Your task to perform on an android device: Go to internet settings Image 0: 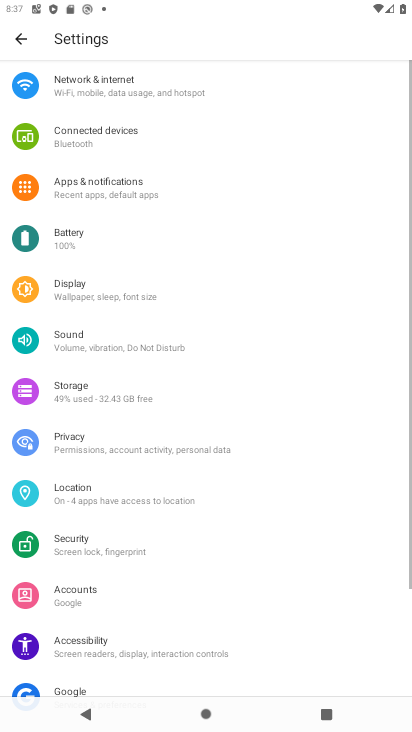
Step 0: click (147, 88)
Your task to perform on an android device: Go to internet settings Image 1: 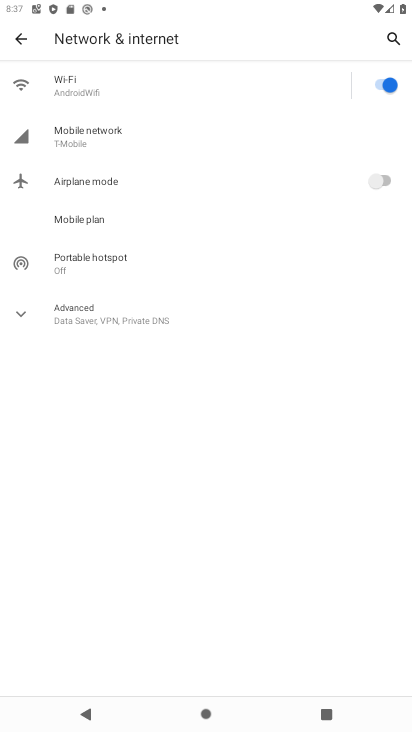
Step 1: click (130, 118)
Your task to perform on an android device: Go to internet settings Image 2: 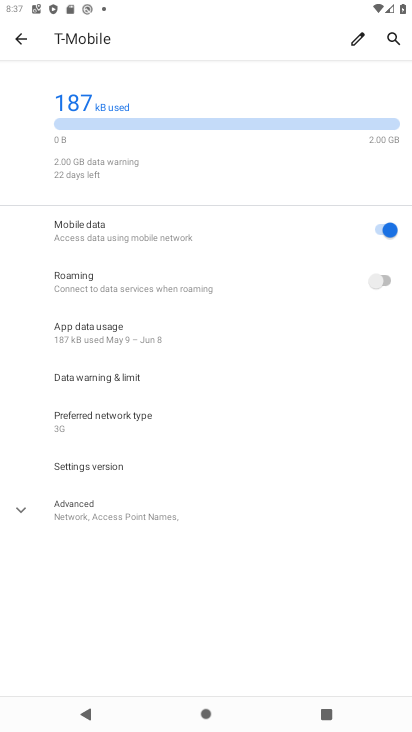
Step 2: task complete